Your task to perform on an android device: Add apple airpods pro to the cart on newegg.com Image 0: 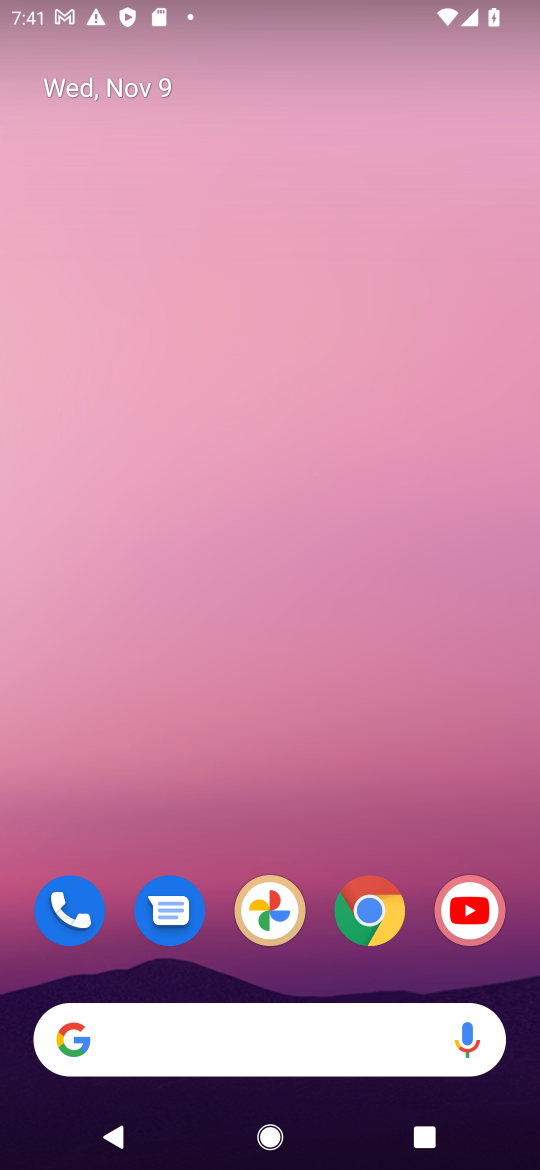
Step 0: click (374, 912)
Your task to perform on an android device: Add apple airpods pro to the cart on newegg.com Image 1: 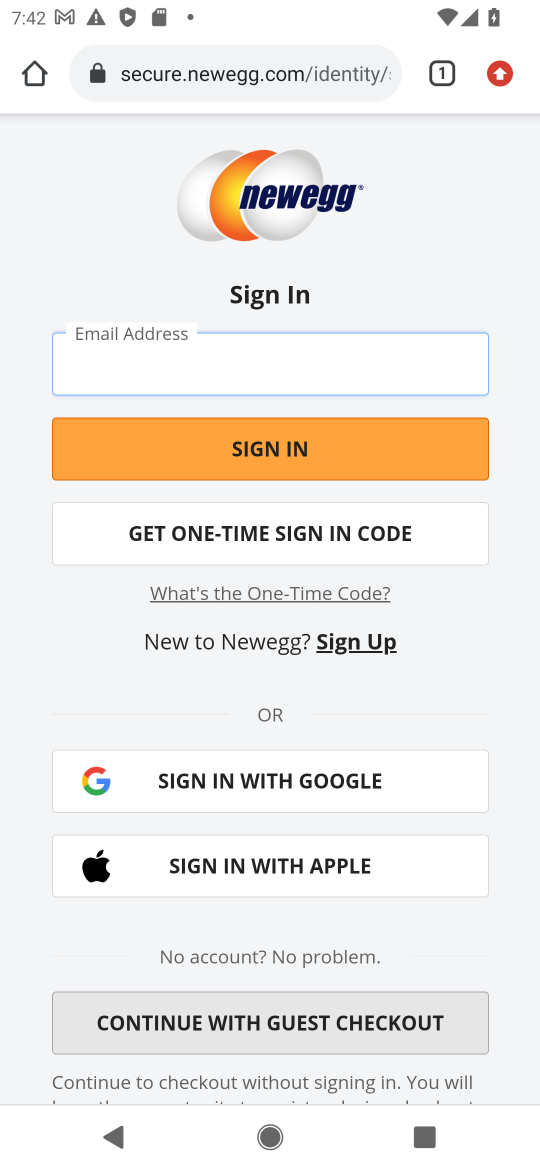
Step 1: press back button
Your task to perform on an android device: Add apple airpods pro to the cart on newegg.com Image 2: 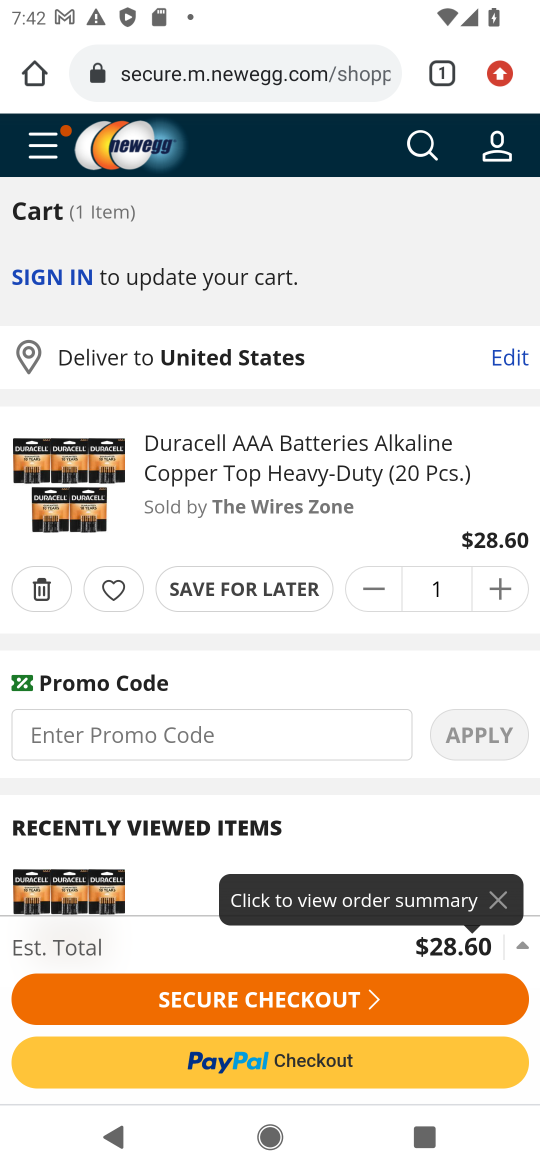
Step 2: click (425, 142)
Your task to perform on an android device: Add apple airpods pro to the cart on newegg.com Image 3: 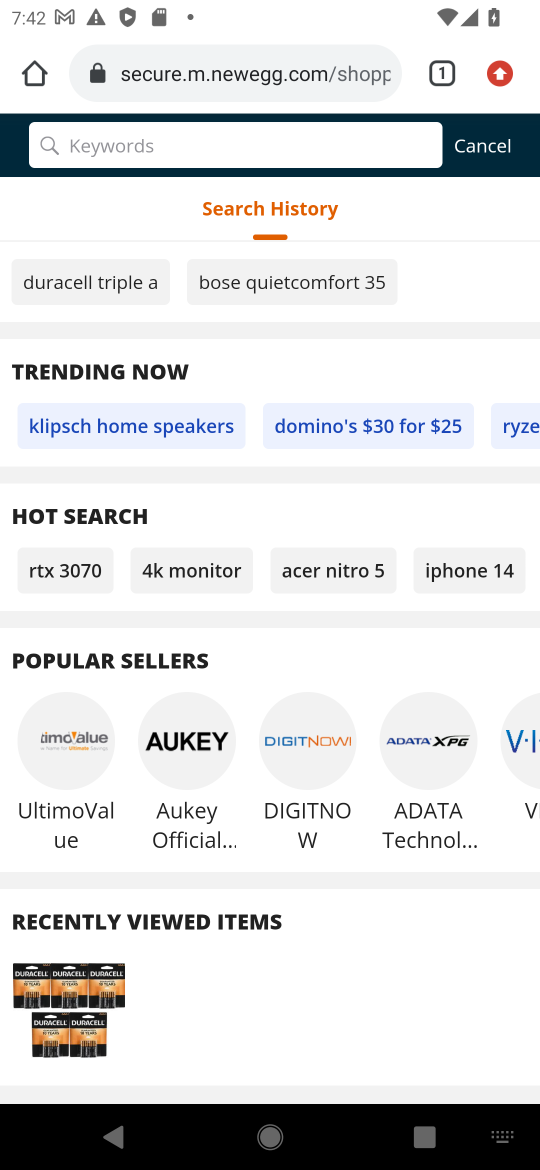
Step 3: type "apple airpods pro"
Your task to perform on an android device: Add apple airpods pro to the cart on newegg.com Image 4: 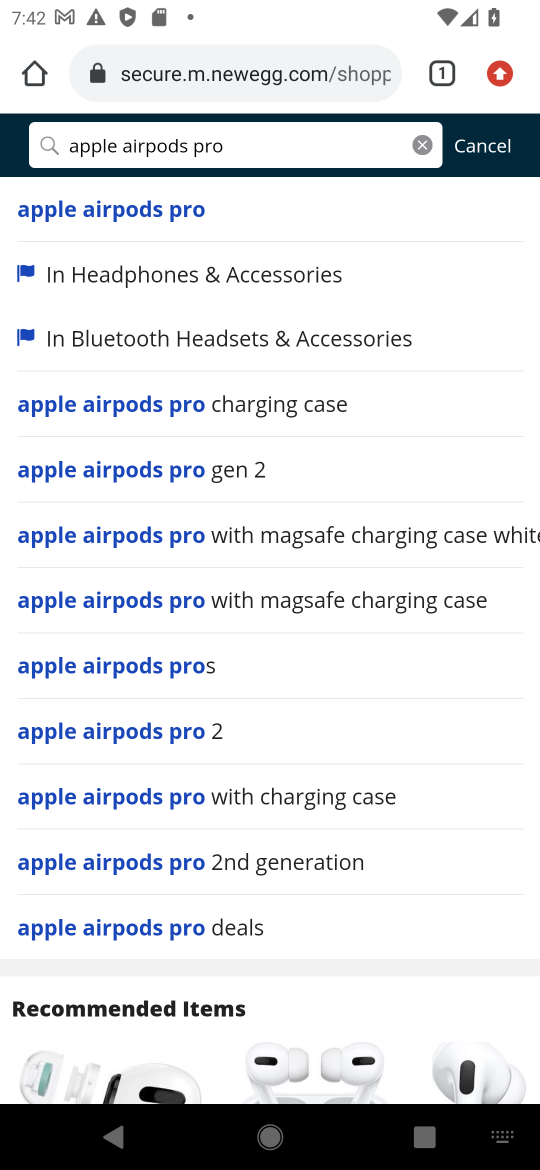
Step 4: click (147, 196)
Your task to perform on an android device: Add apple airpods pro to the cart on newegg.com Image 5: 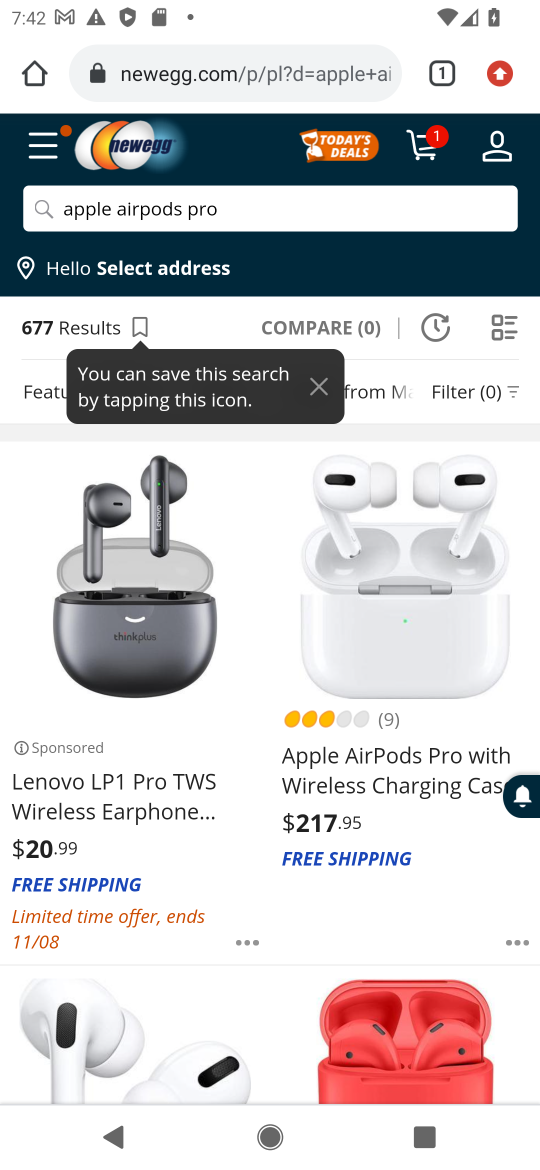
Step 5: click (417, 647)
Your task to perform on an android device: Add apple airpods pro to the cart on newegg.com Image 6: 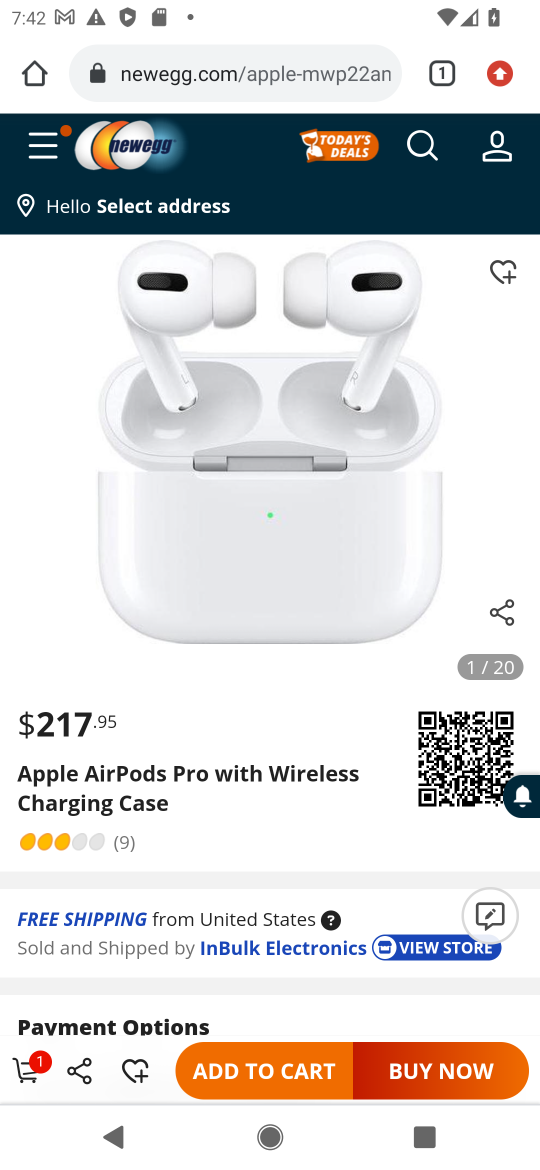
Step 6: click (250, 1079)
Your task to perform on an android device: Add apple airpods pro to the cart on newegg.com Image 7: 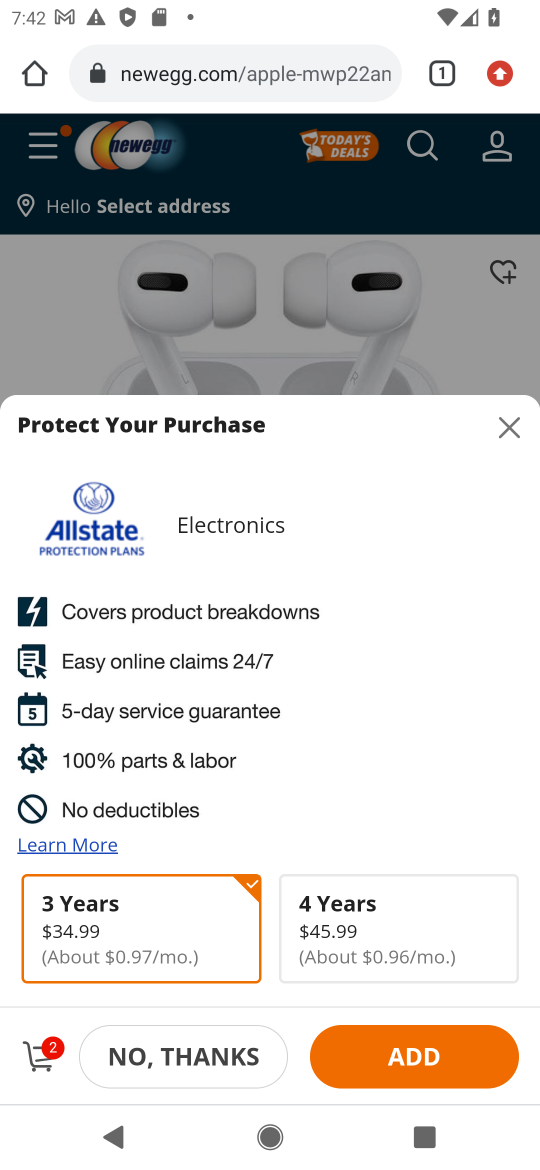
Step 7: task complete